Your task to perform on an android device: turn on javascript in the chrome app Image 0: 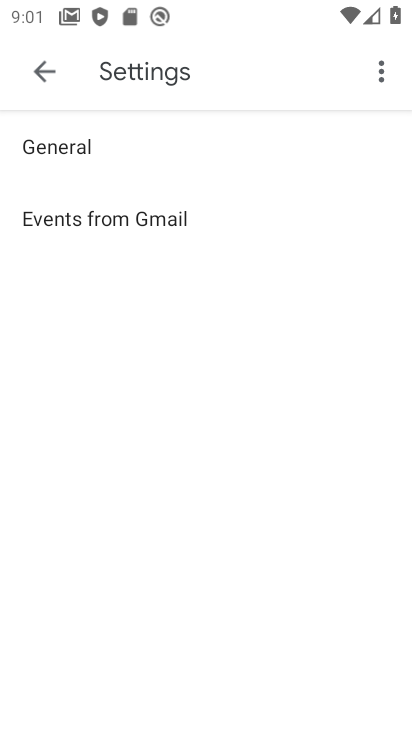
Step 0: drag from (234, 608) to (300, 116)
Your task to perform on an android device: turn on javascript in the chrome app Image 1: 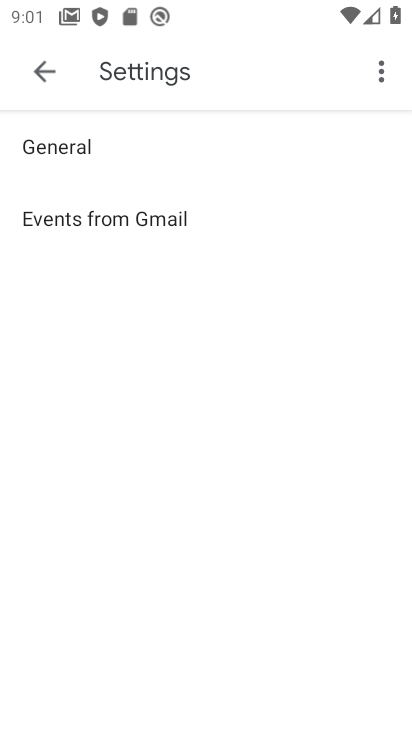
Step 1: press back button
Your task to perform on an android device: turn on javascript in the chrome app Image 2: 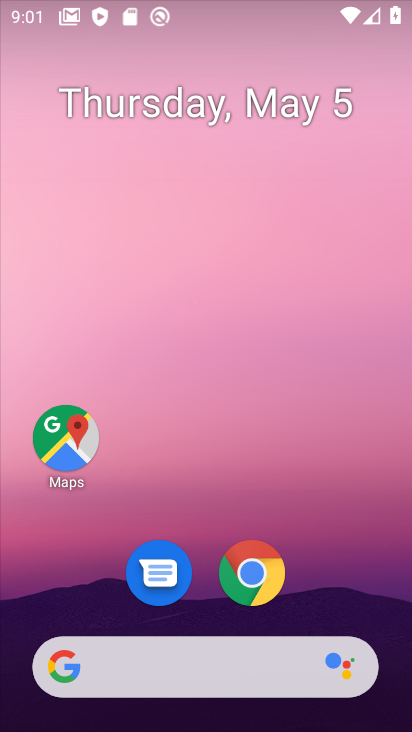
Step 2: drag from (169, 613) to (228, 1)
Your task to perform on an android device: turn on javascript in the chrome app Image 3: 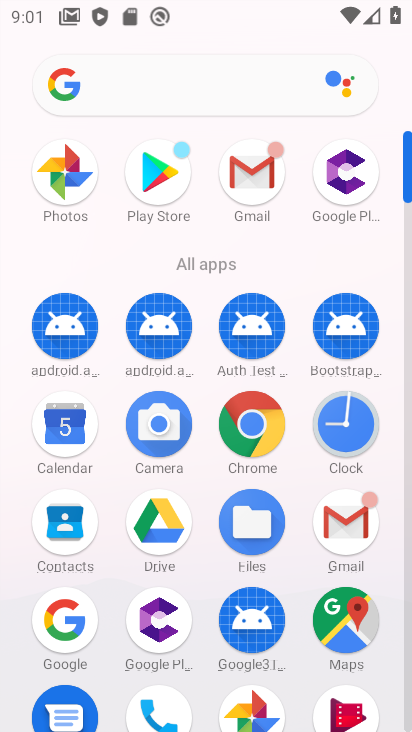
Step 3: drag from (194, 614) to (280, 65)
Your task to perform on an android device: turn on javascript in the chrome app Image 4: 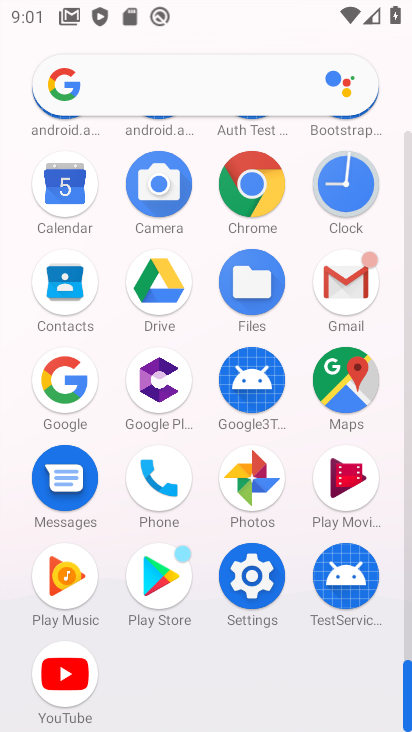
Step 4: click (262, 178)
Your task to perform on an android device: turn on javascript in the chrome app Image 5: 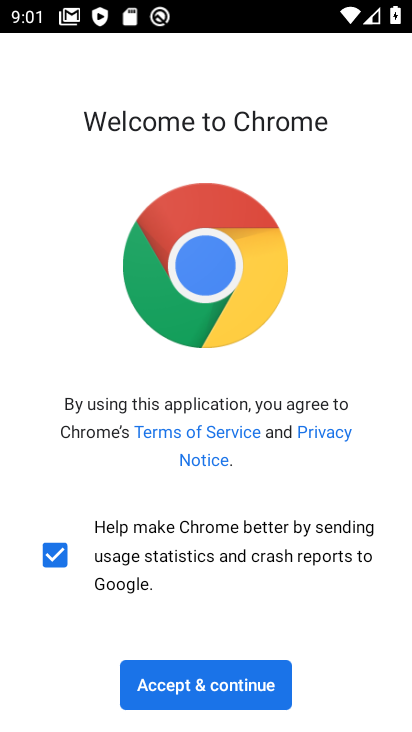
Step 5: click (197, 679)
Your task to perform on an android device: turn on javascript in the chrome app Image 6: 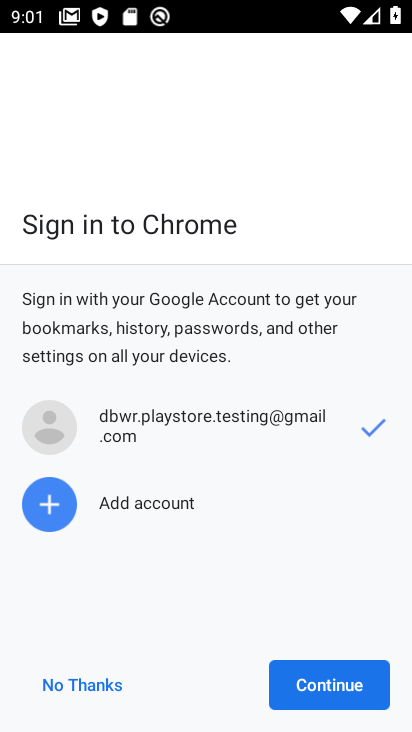
Step 6: click (359, 679)
Your task to perform on an android device: turn on javascript in the chrome app Image 7: 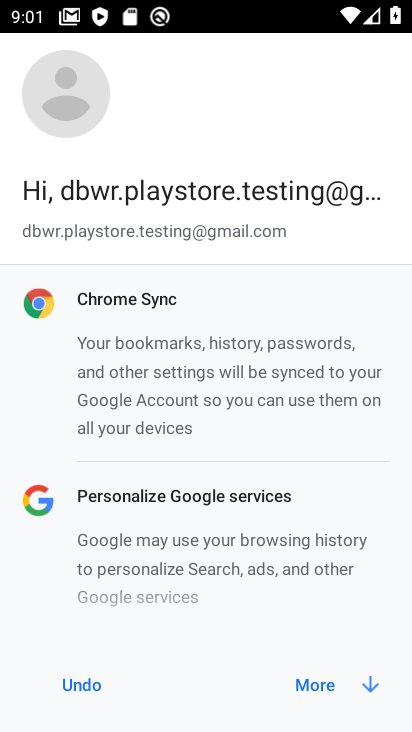
Step 7: click (336, 697)
Your task to perform on an android device: turn on javascript in the chrome app Image 8: 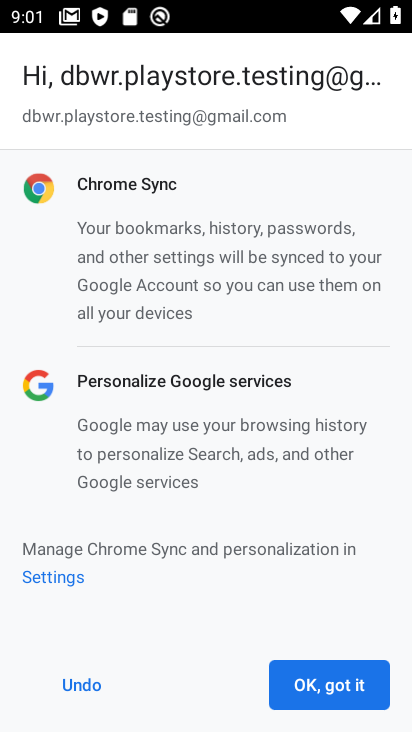
Step 8: click (300, 672)
Your task to perform on an android device: turn on javascript in the chrome app Image 9: 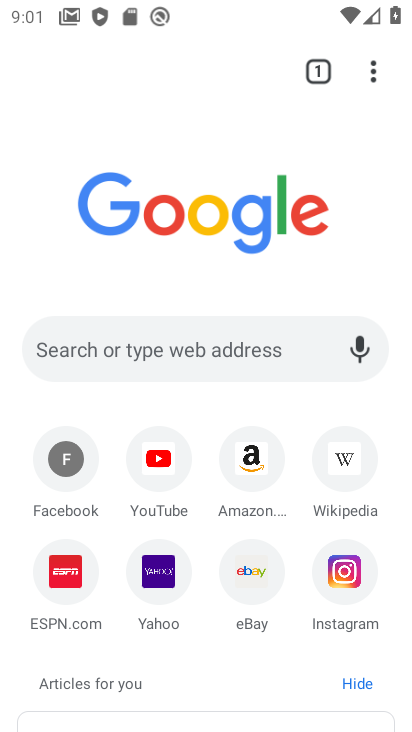
Step 9: drag from (374, 81) to (119, 611)
Your task to perform on an android device: turn on javascript in the chrome app Image 10: 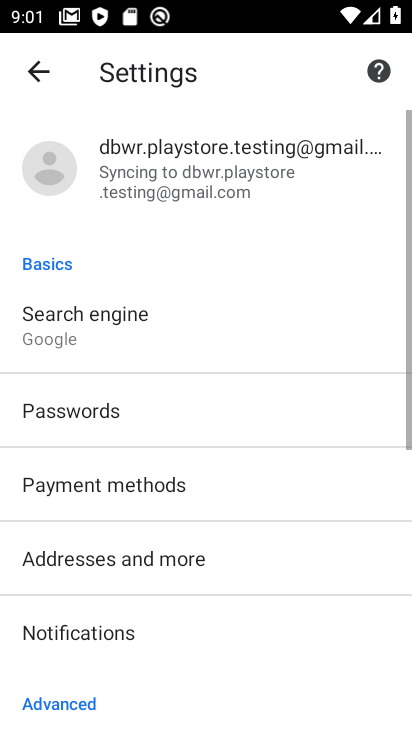
Step 10: drag from (121, 615) to (213, 145)
Your task to perform on an android device: turn on javascript in the chrome app Image 11: 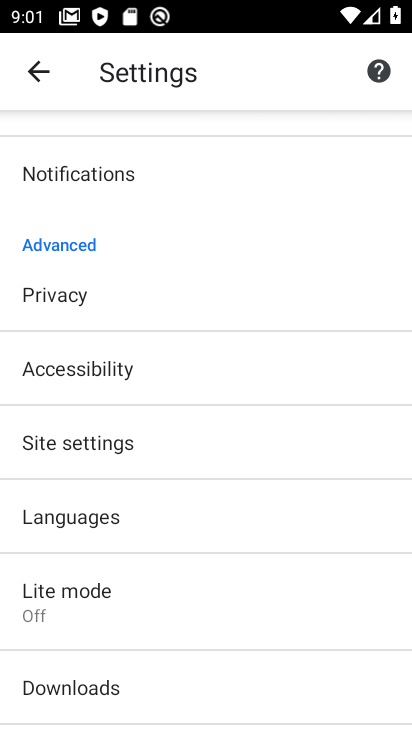
Step 11: click (102, 435)
Your task to perform on an android device: turn on javascript in the chrome app Image 12: 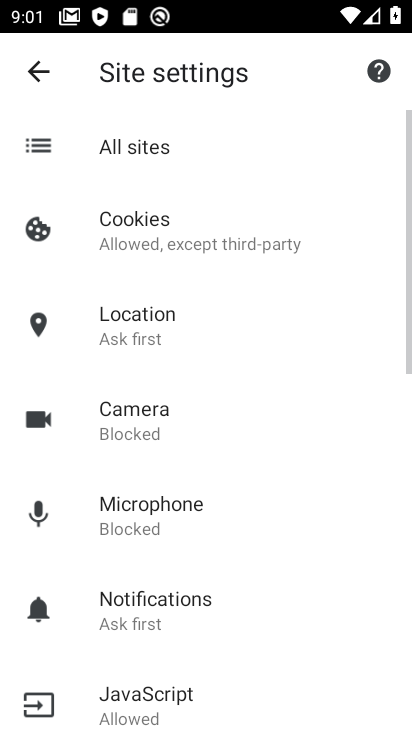
Step 12: click (162, 703)
Your task to perform on an android device: turn on javascript in the chrome app Image 13: 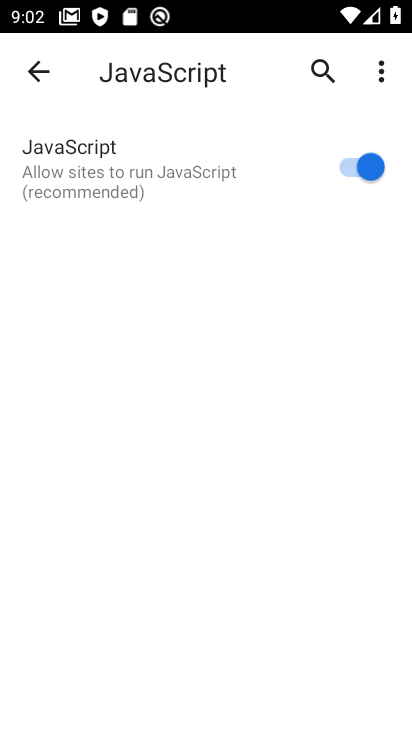
Step 13: task complete